Your task to perform on an android device: Open Google Maps and go to "Timeline" Image 0: 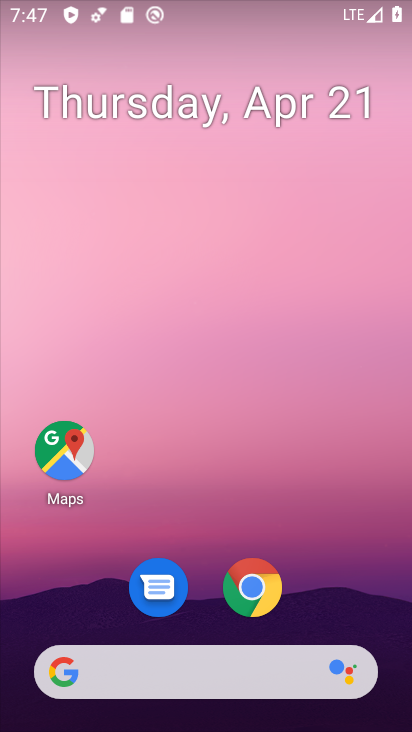
Step 0: click (63, 446)
Your task to perform on an android device: Open Google Maps and go to "Timeline" Image 1: 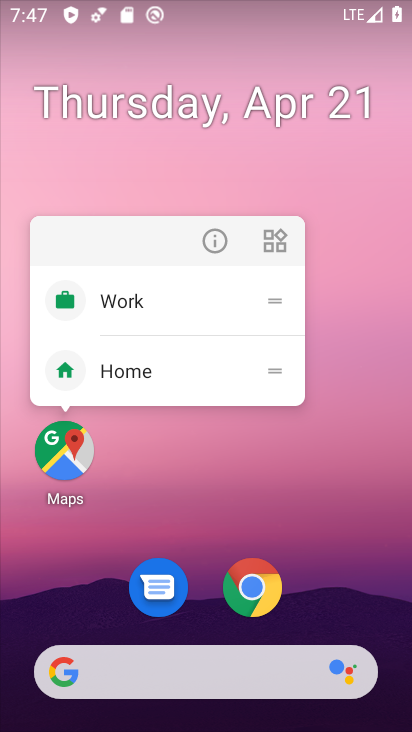
Step 1: click (70, 434)
Your task to perform on an android device: Open Google Maps and go to "Timeline" Image 2: 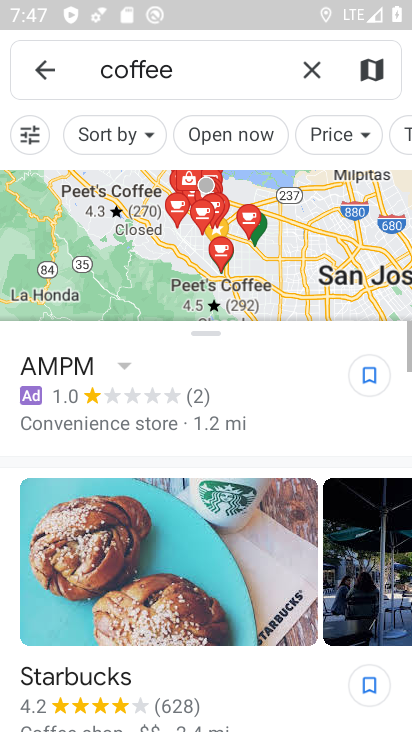
Step 2: click (54, 65)
Your task to perform on an android device: Open Google Maps and go to "Timeline" Image 3: 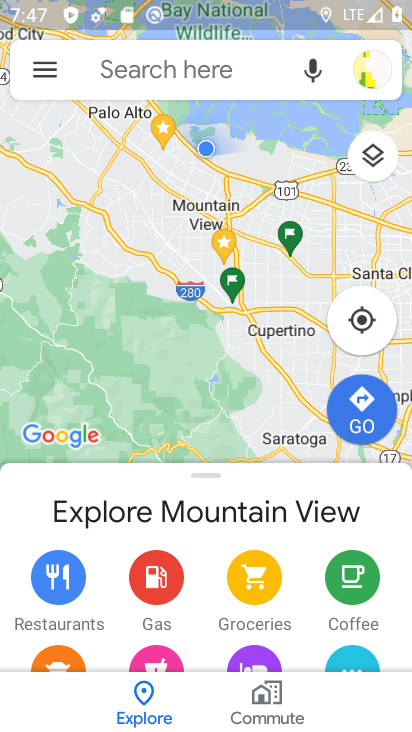
Step 3: click (48, 72)
Your task to perform on an android device: Open Google Maps and go to "Timeline" Image 4: 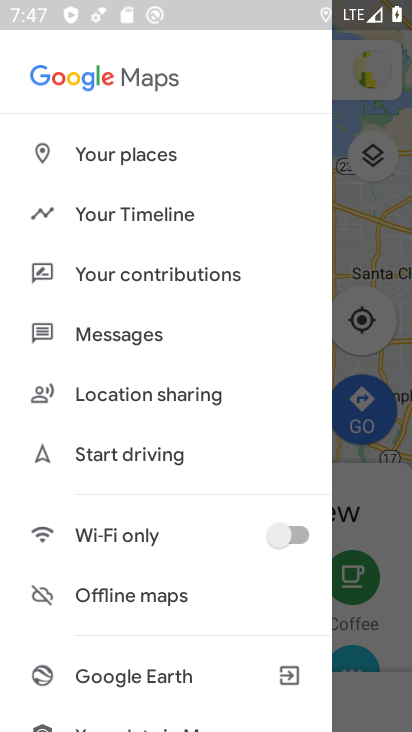
Step 4: click (129, 210)
Your task to perform on an android device: Open Google Maps and go to "Timeline" Image 5: 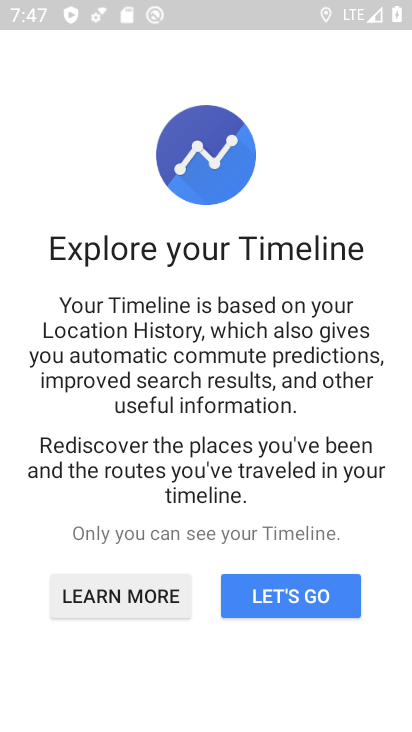
Step 5: click (247, 607)
Your task to perform on an android device: Open Google Maps and go to "Timeline" Image 6: 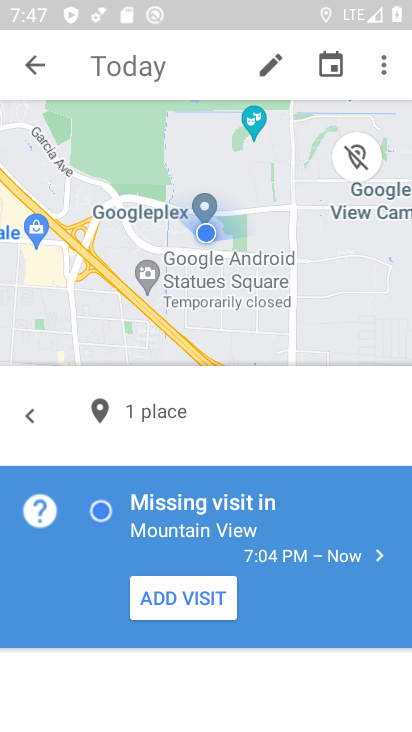
Step 6: task complete